Your task to perform on an android device: toggle notification dots Image 0: 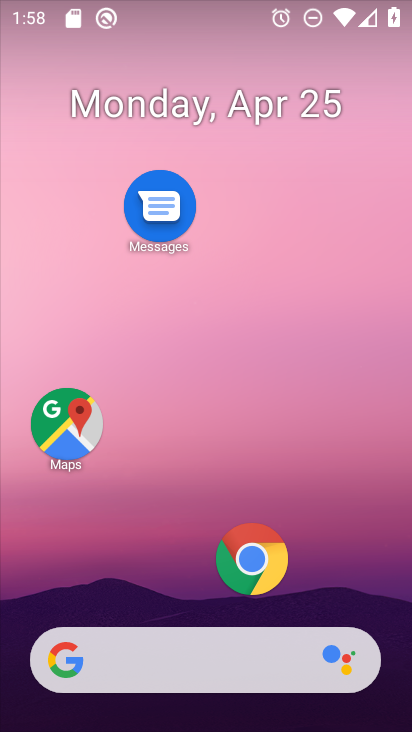
Step 0: drag from (159, 500) to (184, 86)
Your task to perform on an android device: toggle notification dots Image 1: 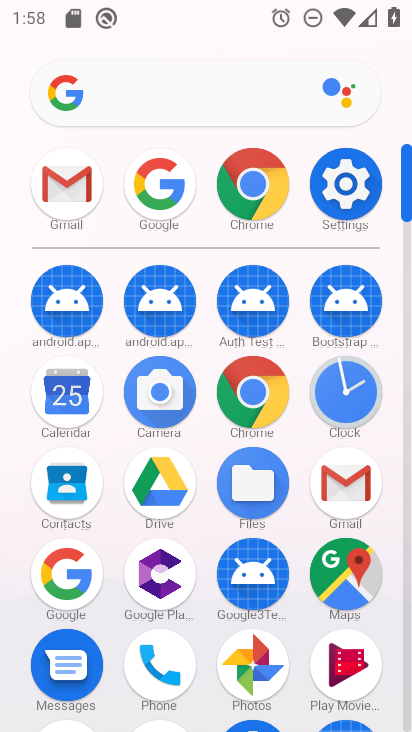
Step 1: click (347, 192)
Your task to perform on an android device: toggle notification dots Image 2: 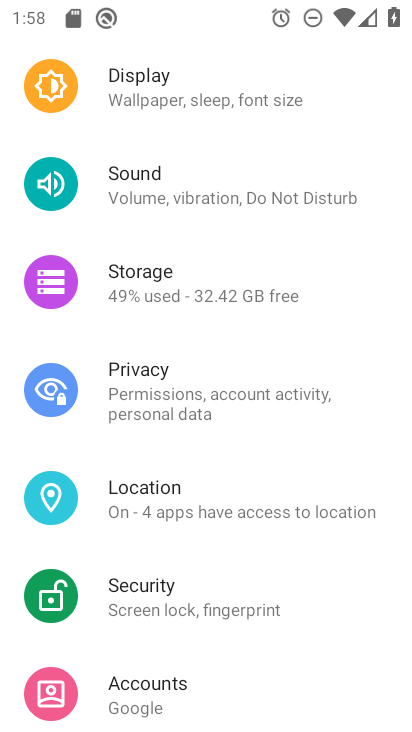
Step 2: click (233, 549)
Your task to perform on an android device: toggle notification dots Image 3: 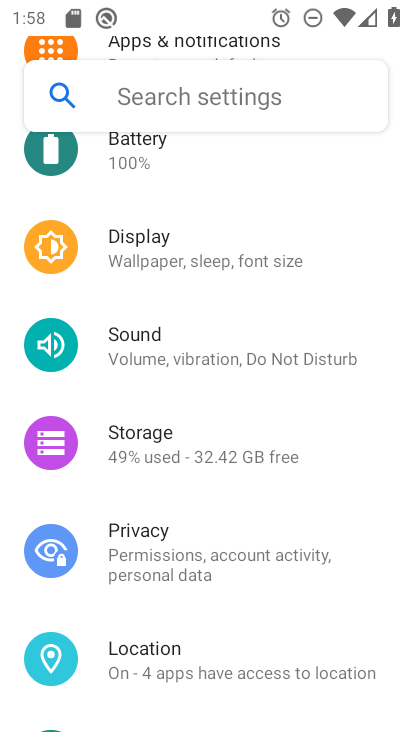
Step 3: drag from (205, 299) to (219, 467)
Your task to perform on an android device: toggle notification dots Image 4: 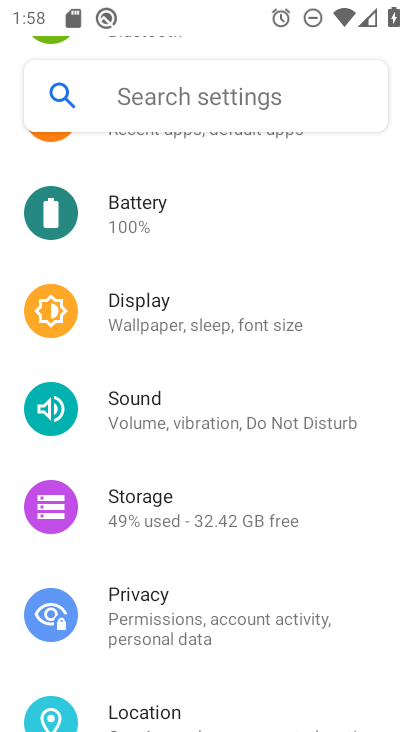
Step 4: drag from (141, 160) to (159, 400)
Your task to perform on an android device: toggle notification dots Image 5: 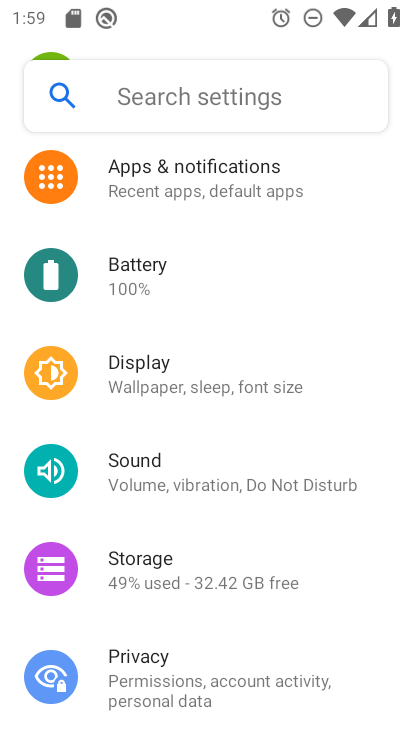
Step 5: click (168, 157)
Your task to perform on an android device: toggle notification dots Image 6: 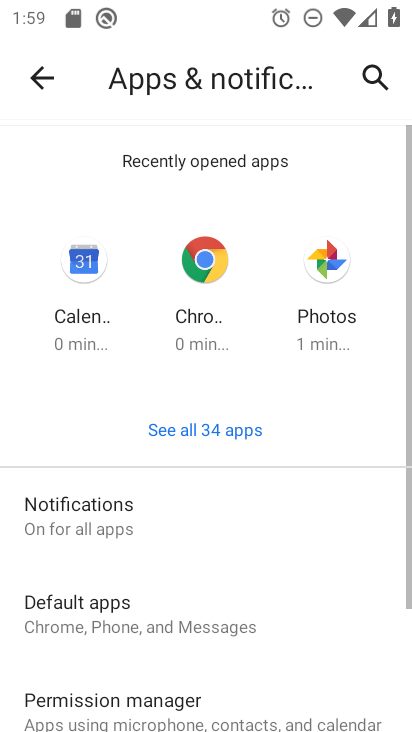
Step 6: click (138, 527)
Your task to perform on an android device: toggle notification dots Image 7: 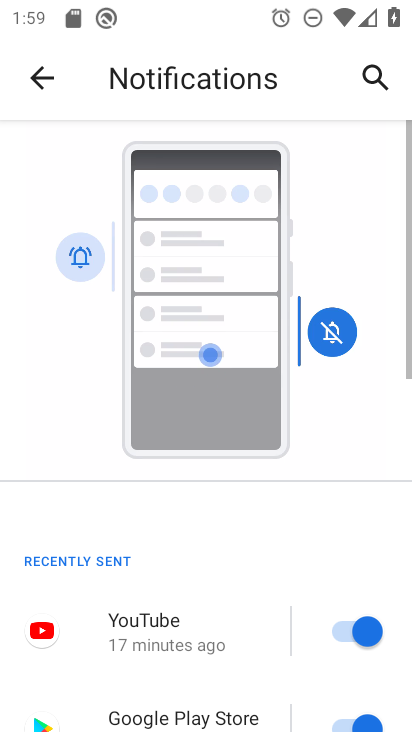
Step 7: drag from (294, 566) to (343, 23)
Your task to perform on an android device: toggle notification dots Image 8: 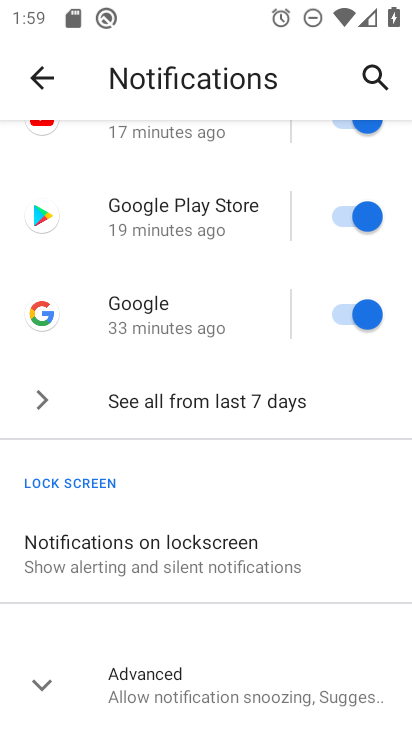
Step 8: drag from (265, 572) to (298, 322)
Your task to perform on an android device: toggle notification dots Image 9: 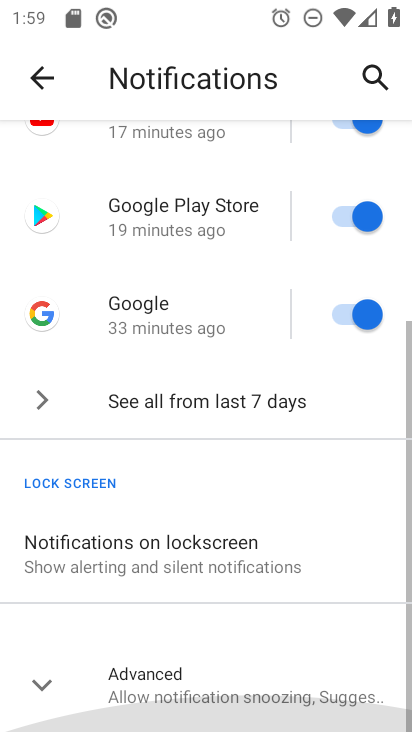
Step 9: click (157, 684)
Your task to perform on an android device: toggle notification dots Image 10: 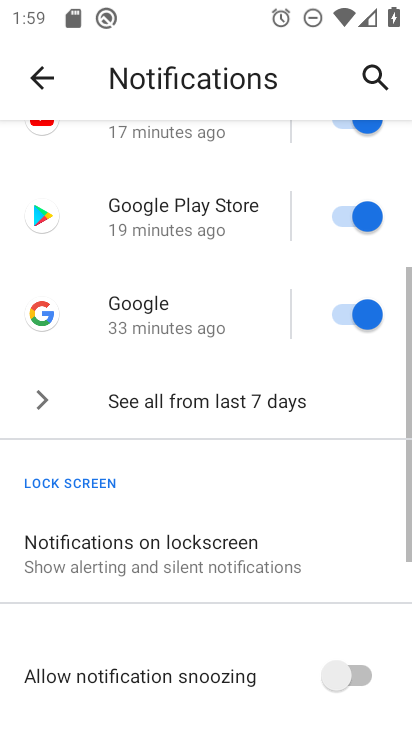
Step 10: drag from (247, 614) to (310, 401)
Your task to perform on an android device: toggle notification dots Image 11: 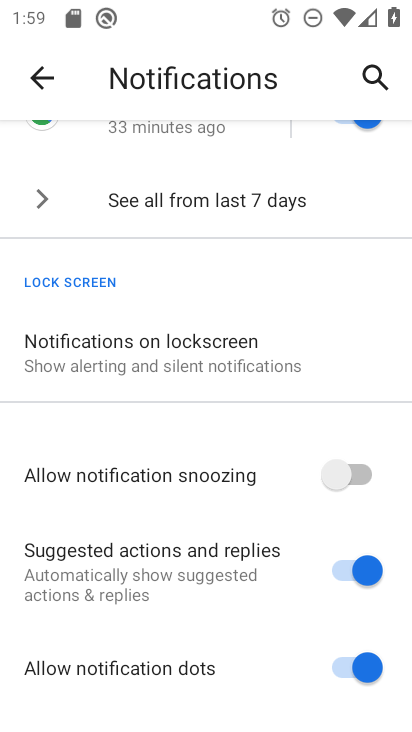
Step 11: click (360, 666)
Your task to perform on an android device: toggle notification dots Image 12: 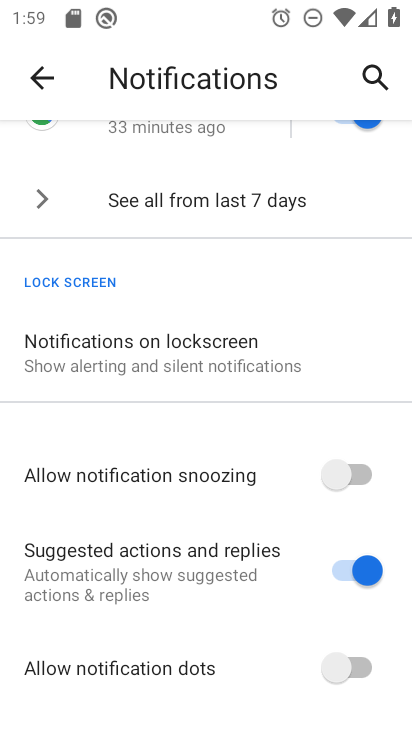
Step 12: task complete